Your task to perform on an android device: see creations saved in the google photos Image 0: 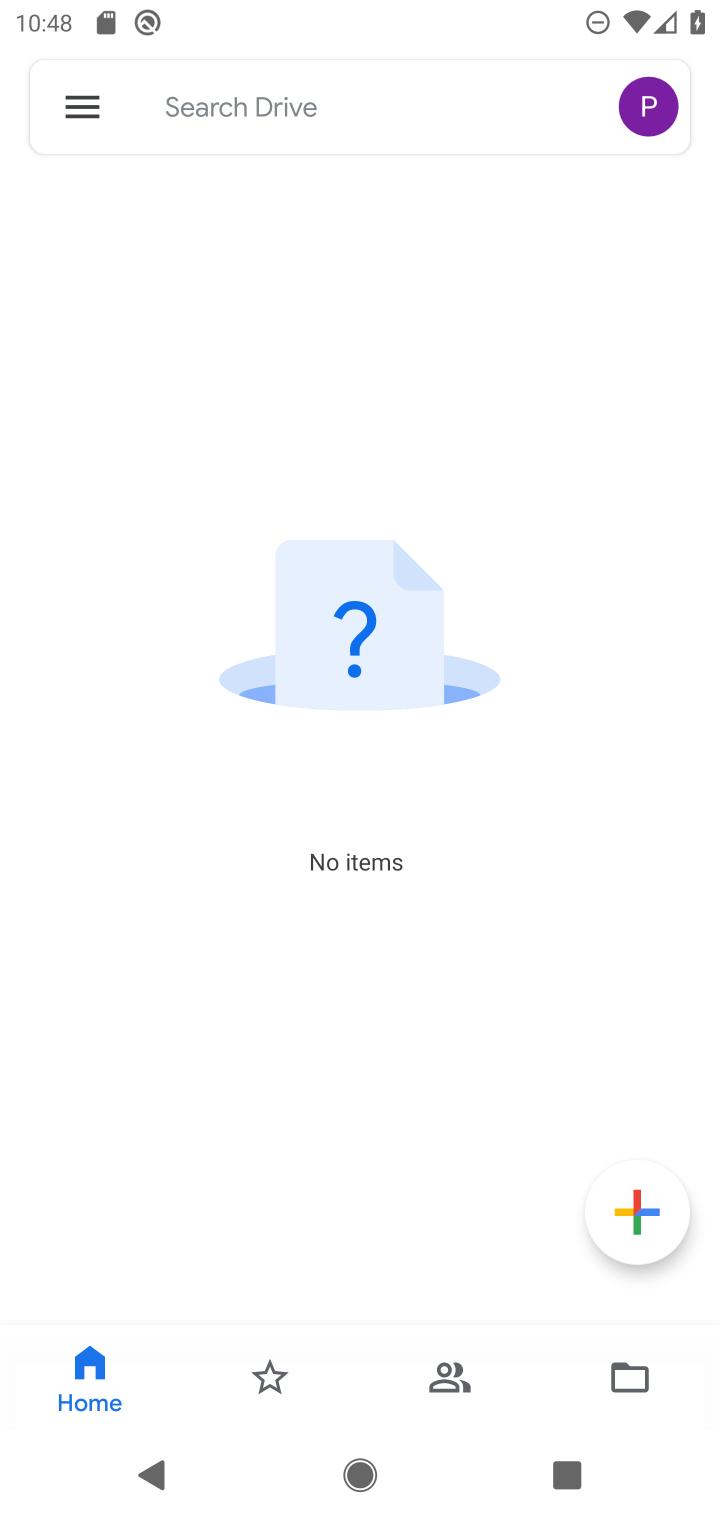
Step 0: press home button
Your task to perform on an android device: see creations saved in the google photos Image 1: 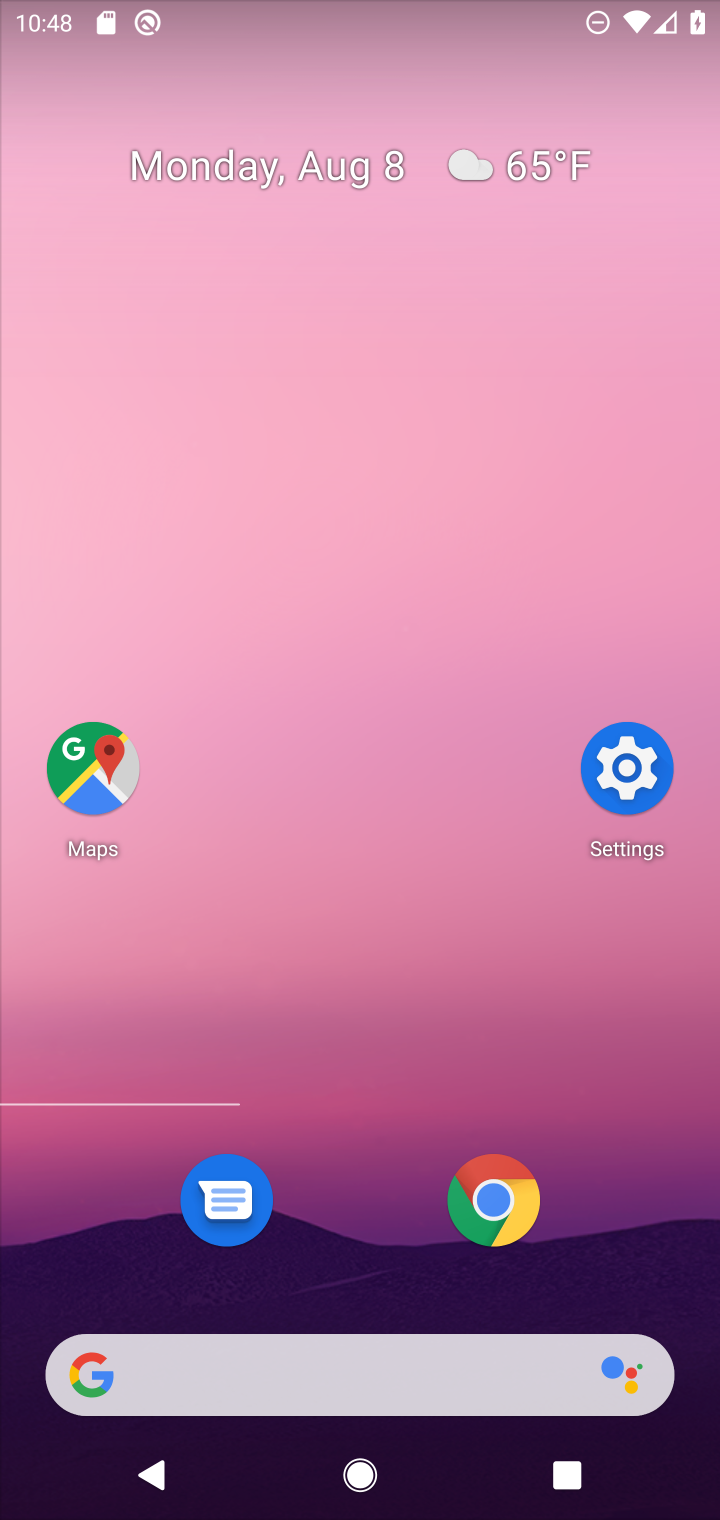
Step 1: drag from (330, 1361) to (674, 308)
Your task to perform on an android device: see creations saved in the google photos Image 2: 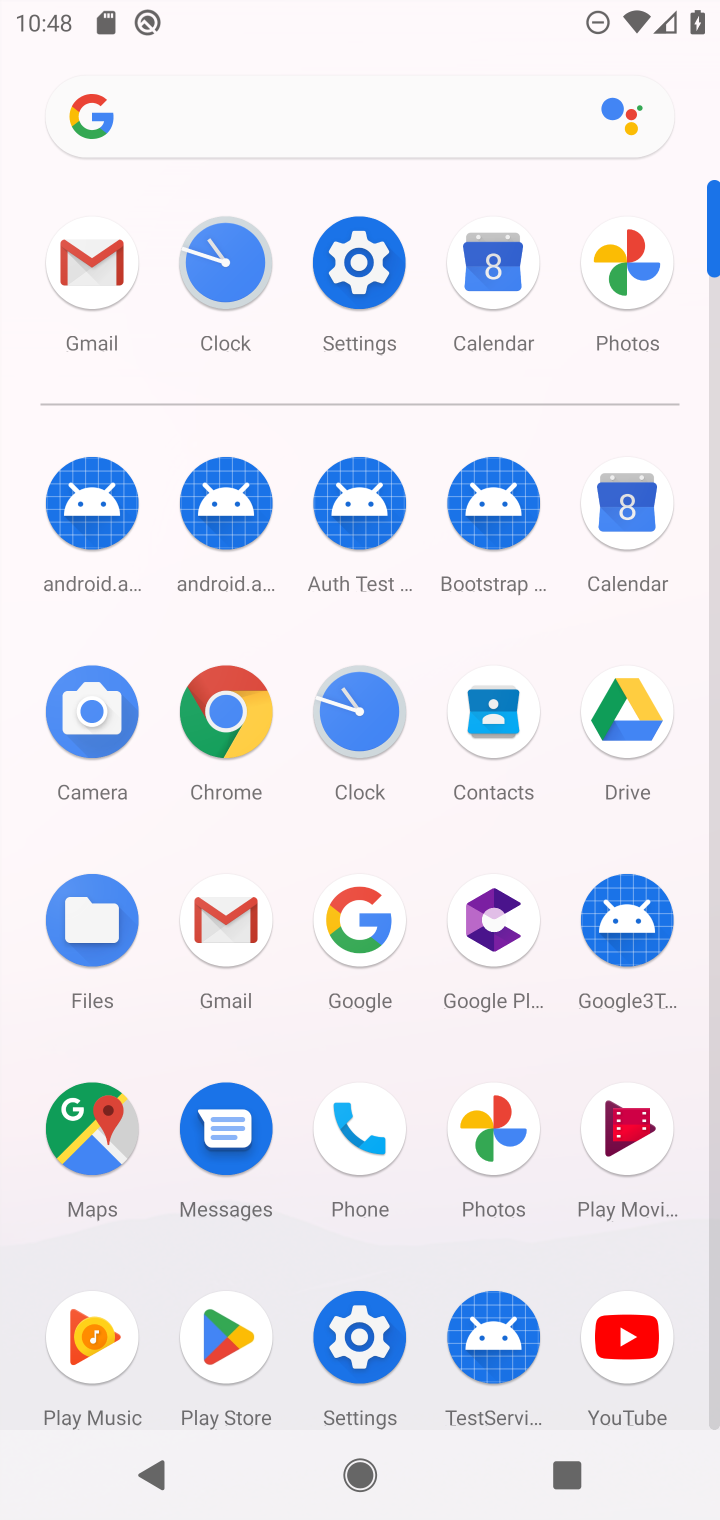
Step 2: click (627, 259)
Your task to perform on an android device: see creations saved in the google photos Image 3: 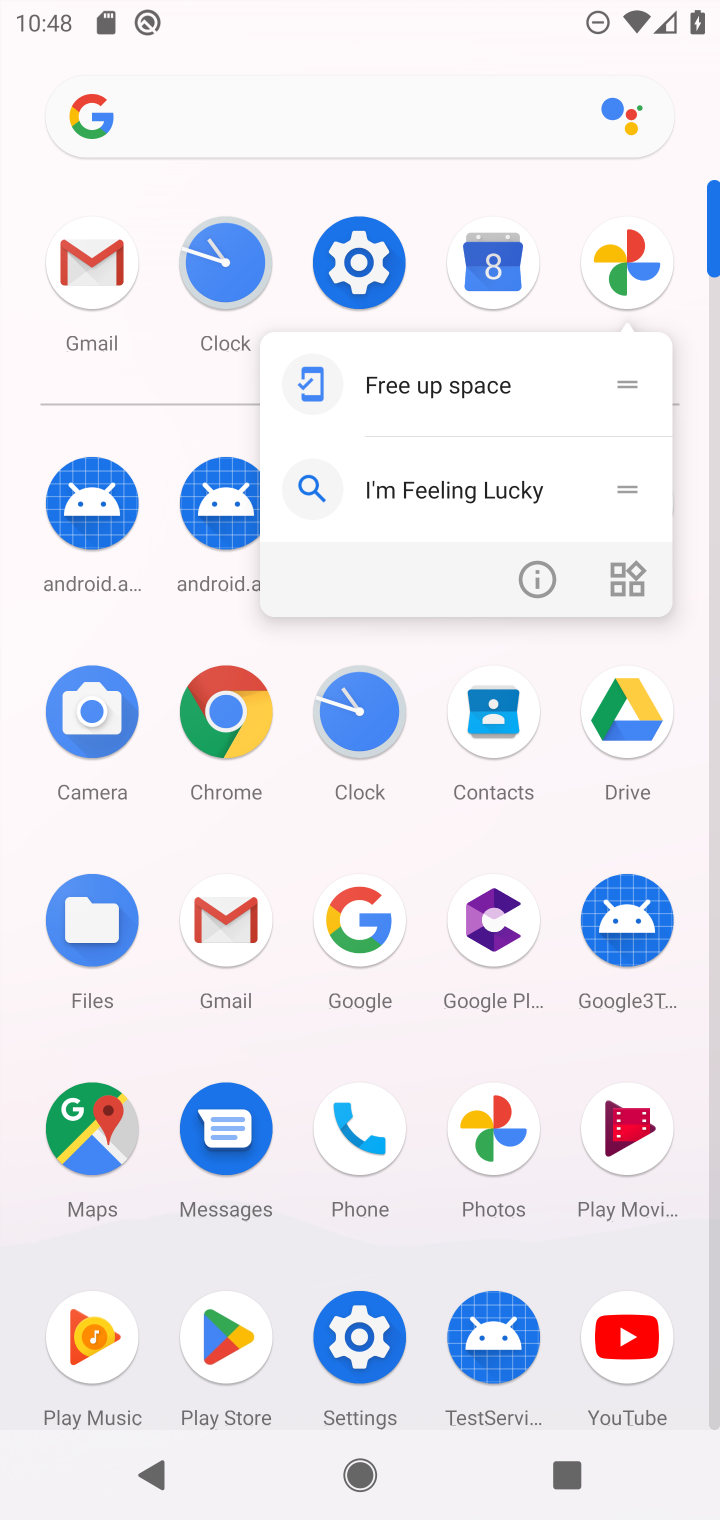
Step 3: click (627, 263)
Your task to perform on an android device: see creations saved in the google photos Image 4: 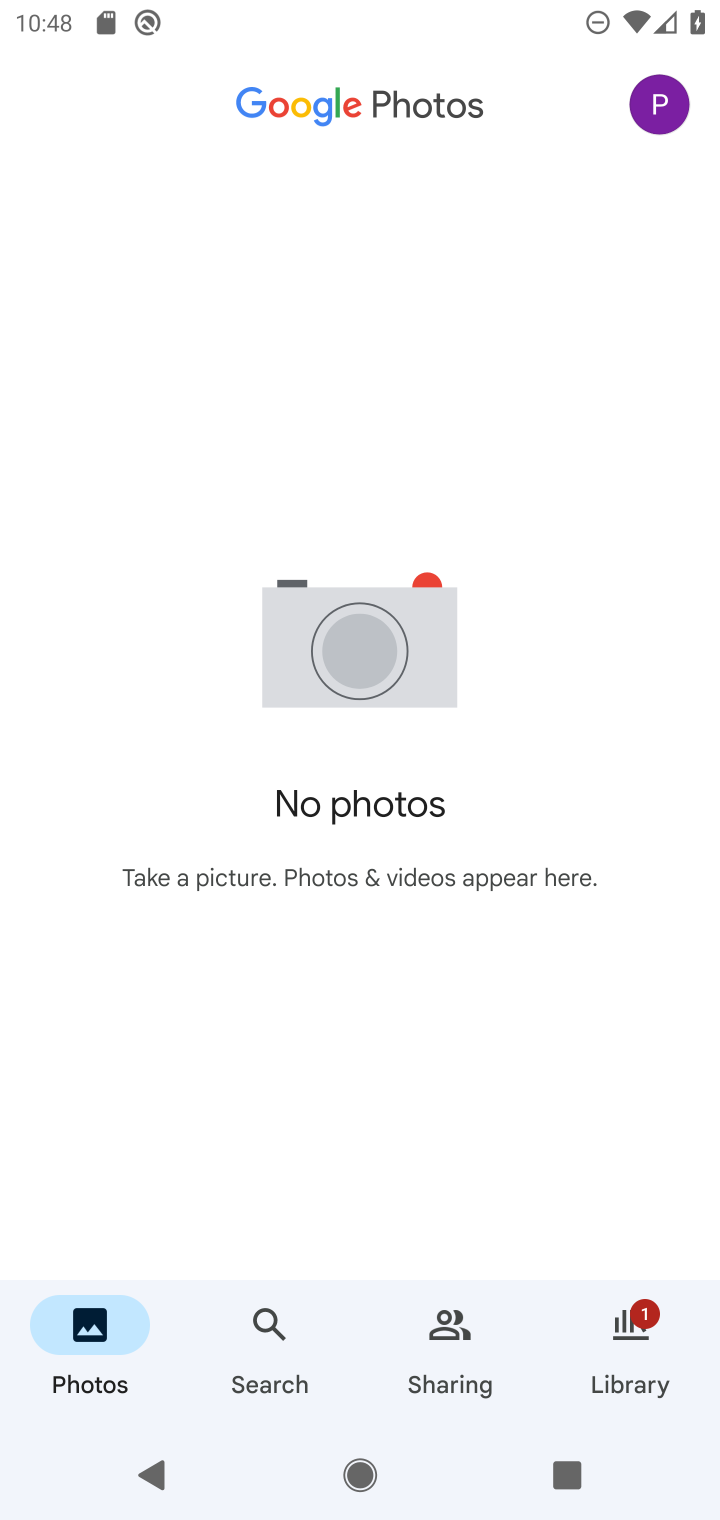
Step 4: click (267, 1329)
Your task to perform on an android device: see creations saved in the google photos Image 5: 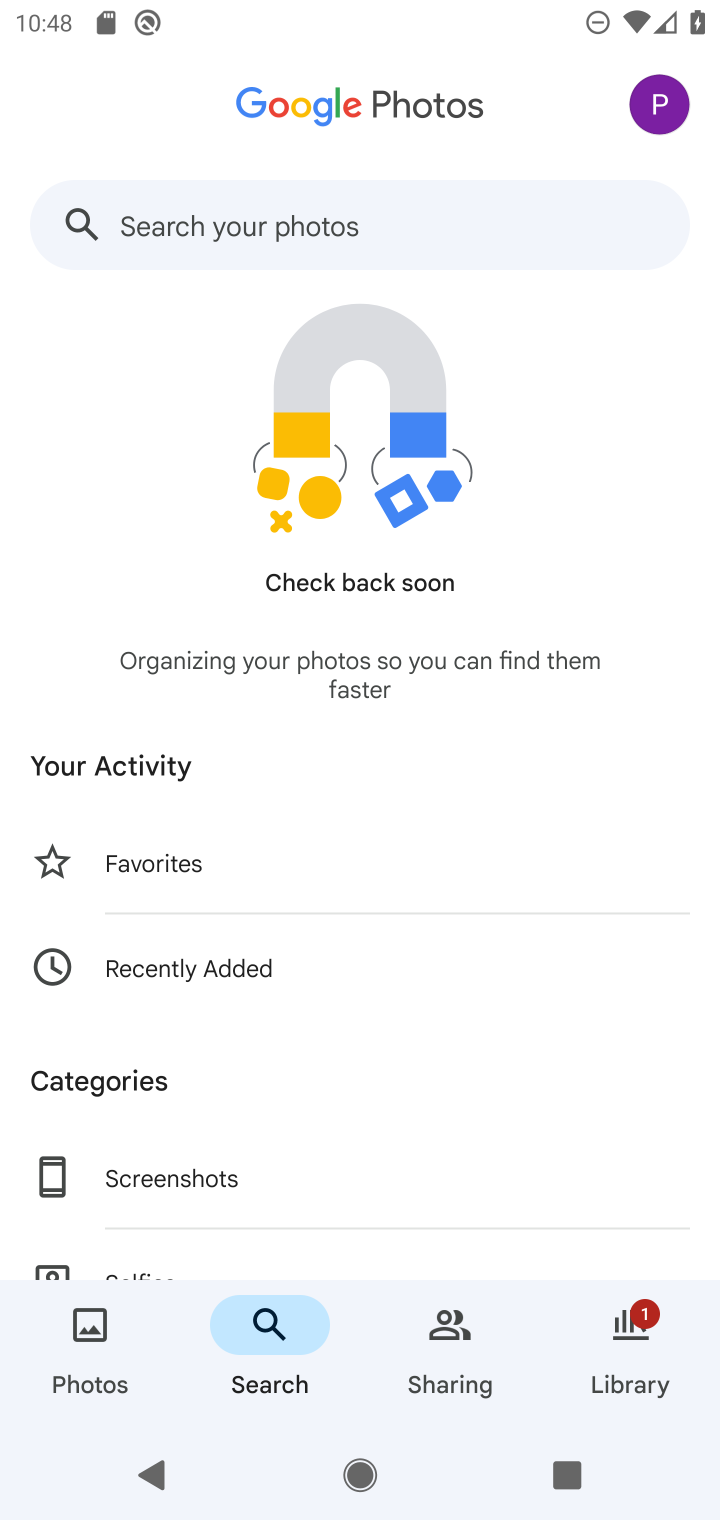
Step 5: drag from (289, 1144) to (603, 271)
Your task to perform on an android device: see creations saved in the google photos Image 6: 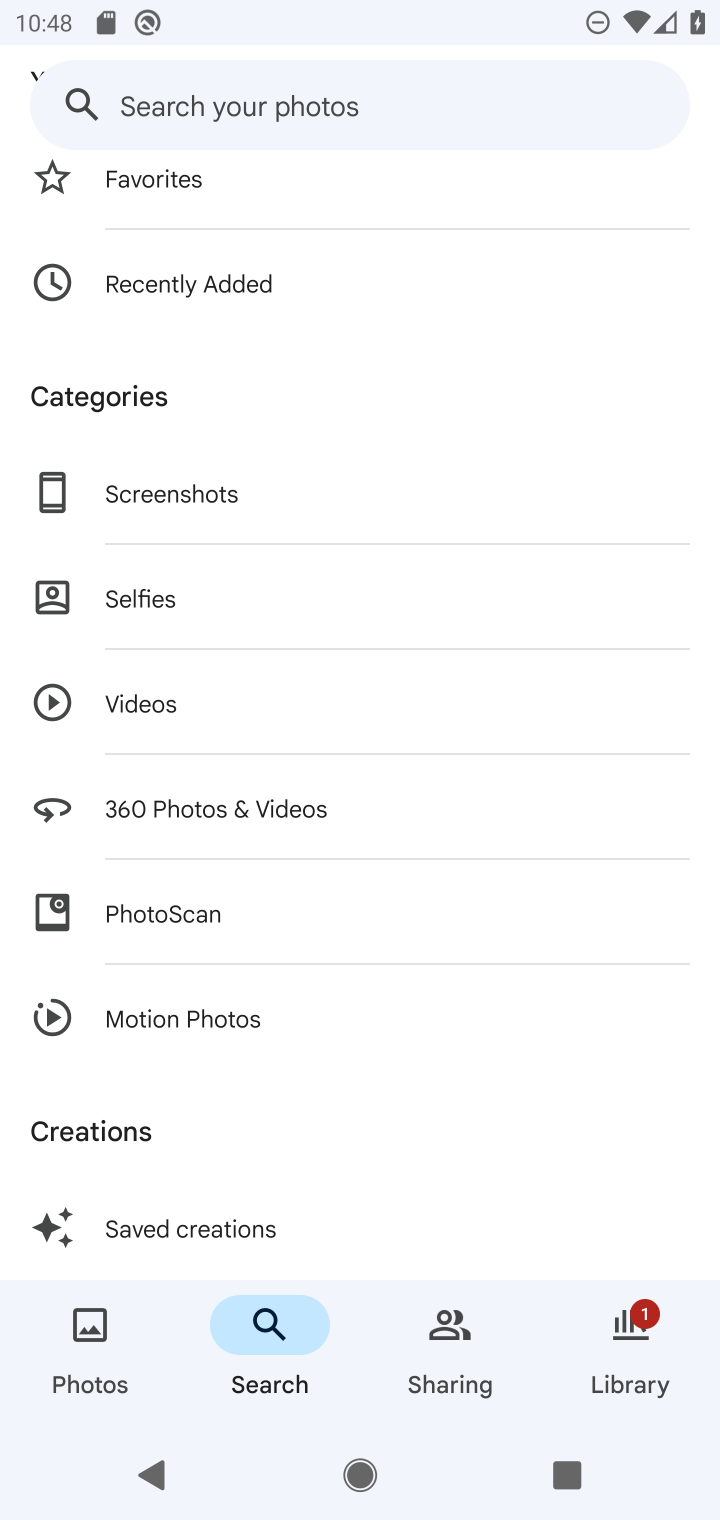
Step 6: click (206, 1227)
Your task to perform on an android device: see creations saved in the google photos Image 7: 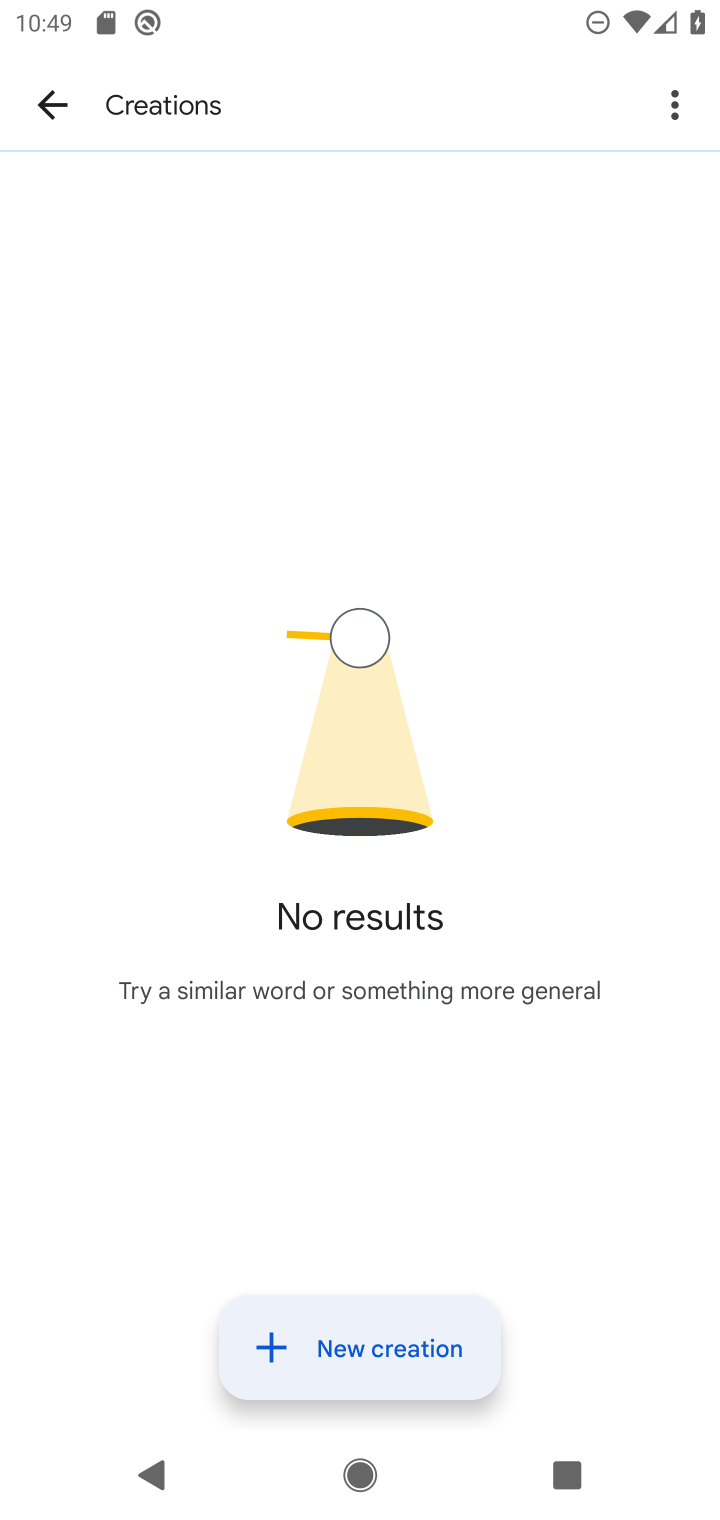
Step 7: task complete